Your task to perform on an android device: open app "LiveIn - Share Your Moment" Image 0: 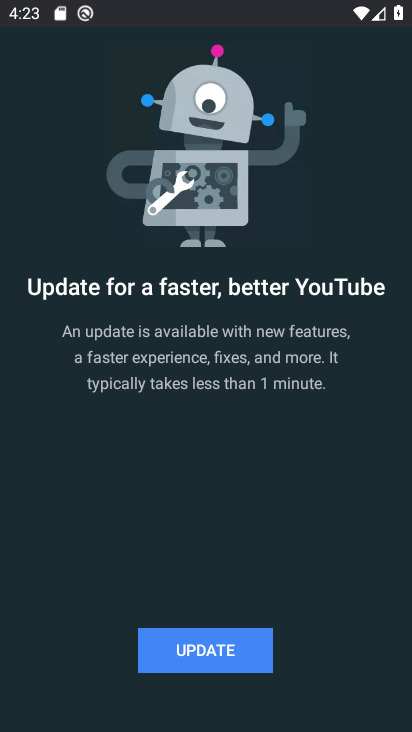
Step 0: press home button
Your task to perform on an android device: open app "LiveIn - Share Your Moment" Image 1: 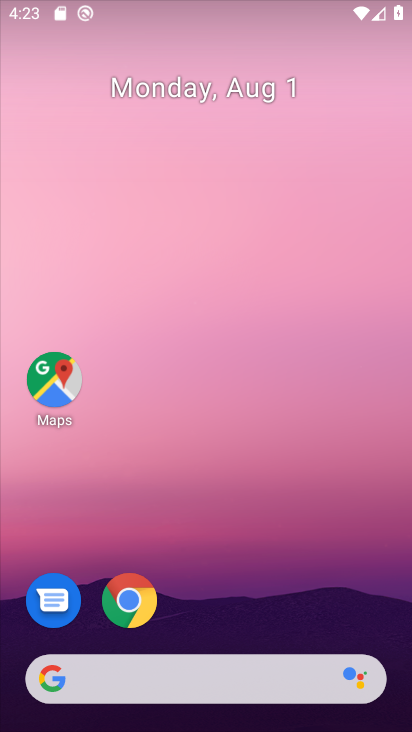
Step 1: drag from (304, 515) to (291, 1)
Your task to perform on an android device: open app "LiveIn - Share Your Moment" Image 2: 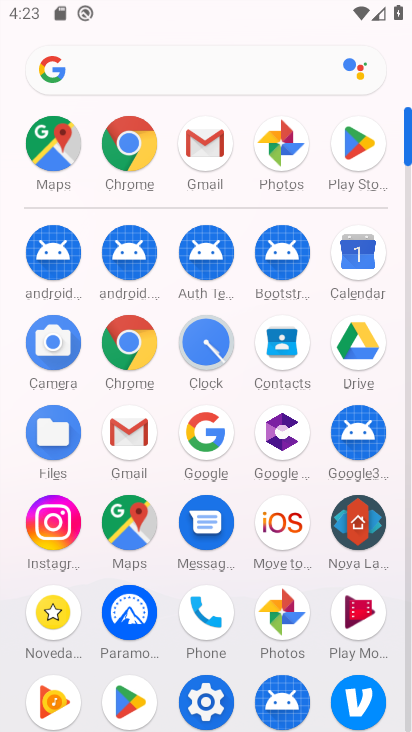
Step 2: click (371, 148)
Your task to perform on an android device: open app "LiveIn - Share Your Moment" Image 3: 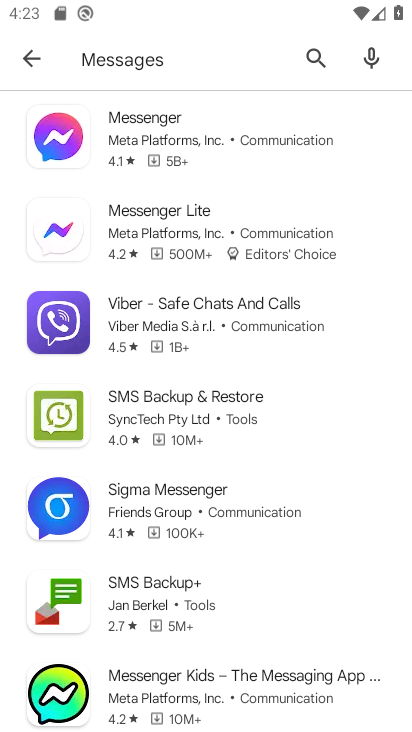
Step 3: click (198, 64)
Your task to perform on an android device: open app "LiveIn - Share Your Moment" Image 4: 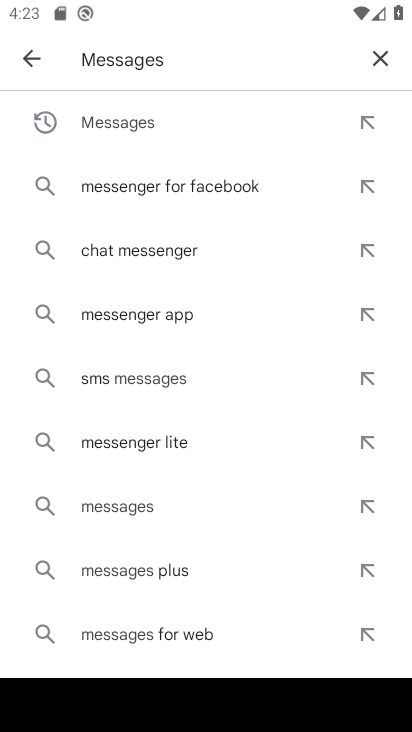
Step 4: click (384, 48)
Your task to perform on an android device: open app "LiveIn - Share Your Moment" Image 5: 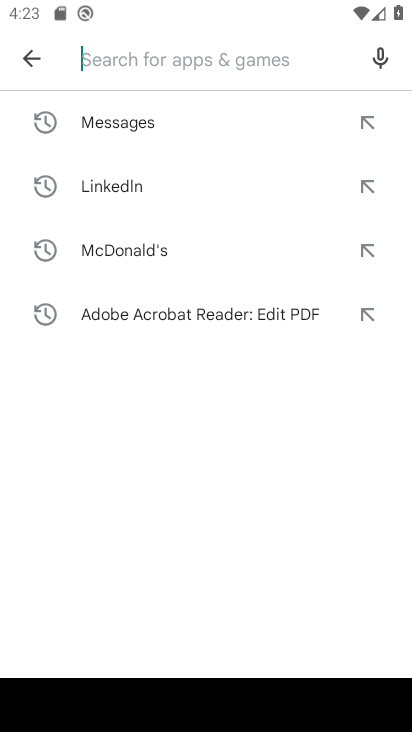
Step 5: type "Liveln - Share your Moment"
Your task to perform on an android device: open app "LiveIn - Share Your Moment" Image 6: 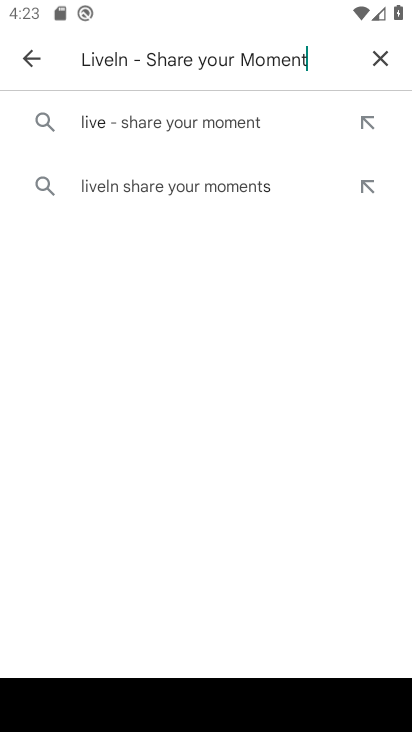
Step 6: press enter
Your task to perform on an android device: open app "LiveIn - Share Your Moment" Image 7: 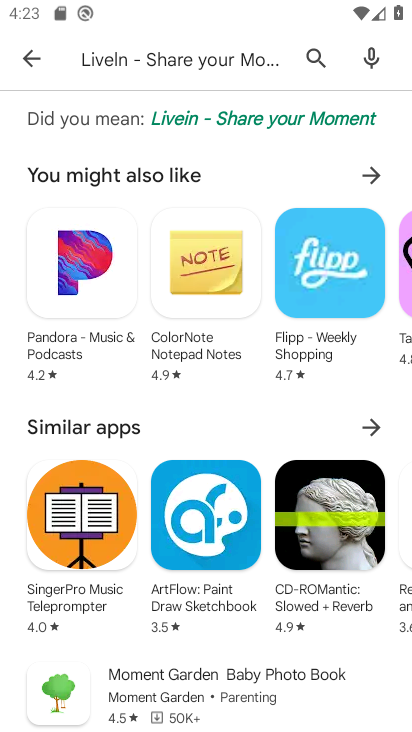
Step 7: click (338, 119)
Your task to perform on an android device: open app "LiveIn - Share Your Moment" Image 8: 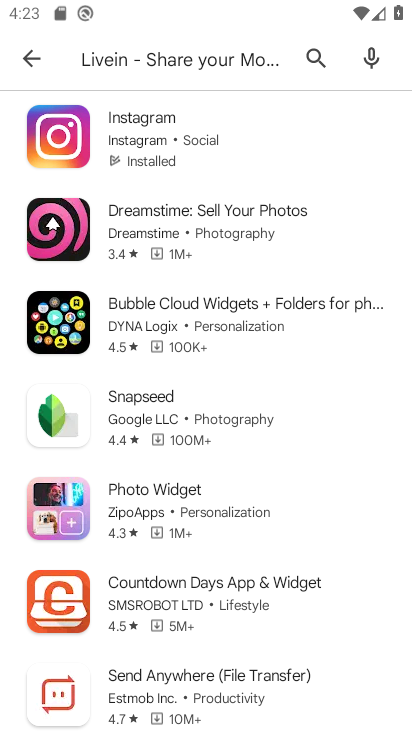
Step 8: task complete